Your task to perform on an android device: delete a single message in the gmail app Image 0: 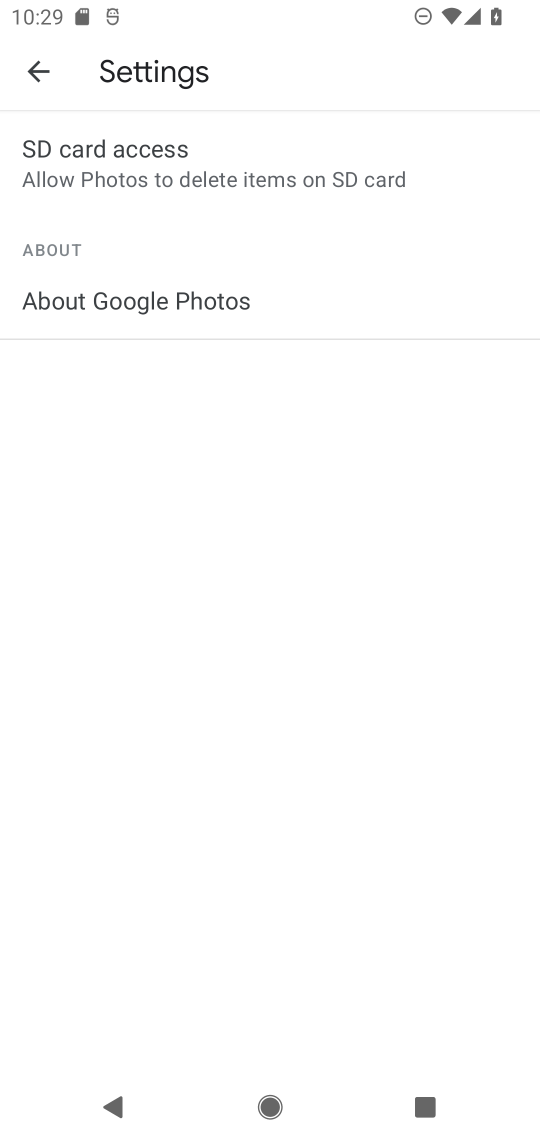
Step 0: press home button
Your task to perform on an android device: delete a single message in the gmail app Image 1: 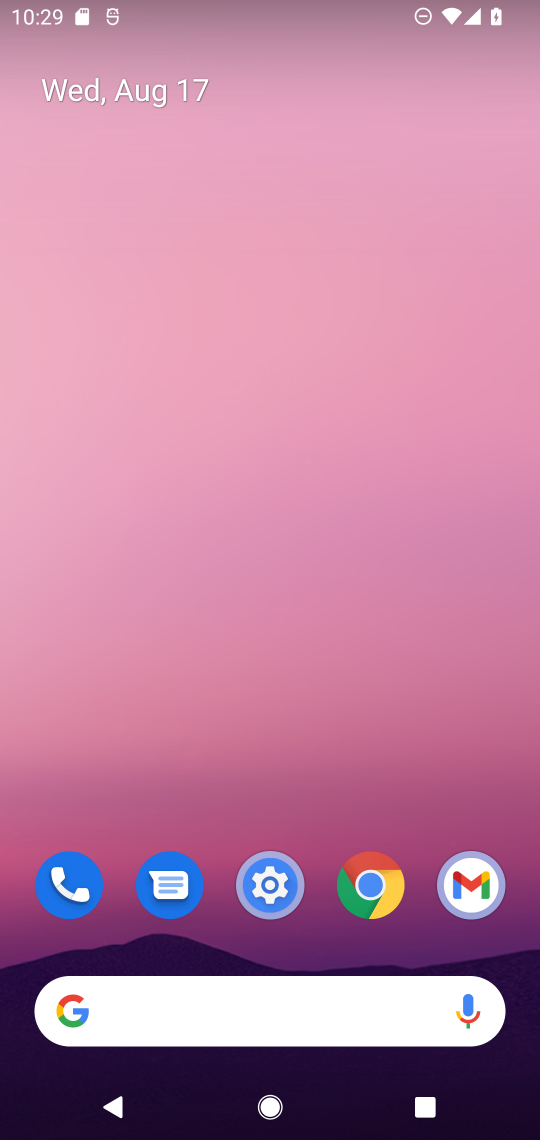
Step 1: click (466, 882)
Your task to perform on an android device: delete a single message in the gmail app Image 2: 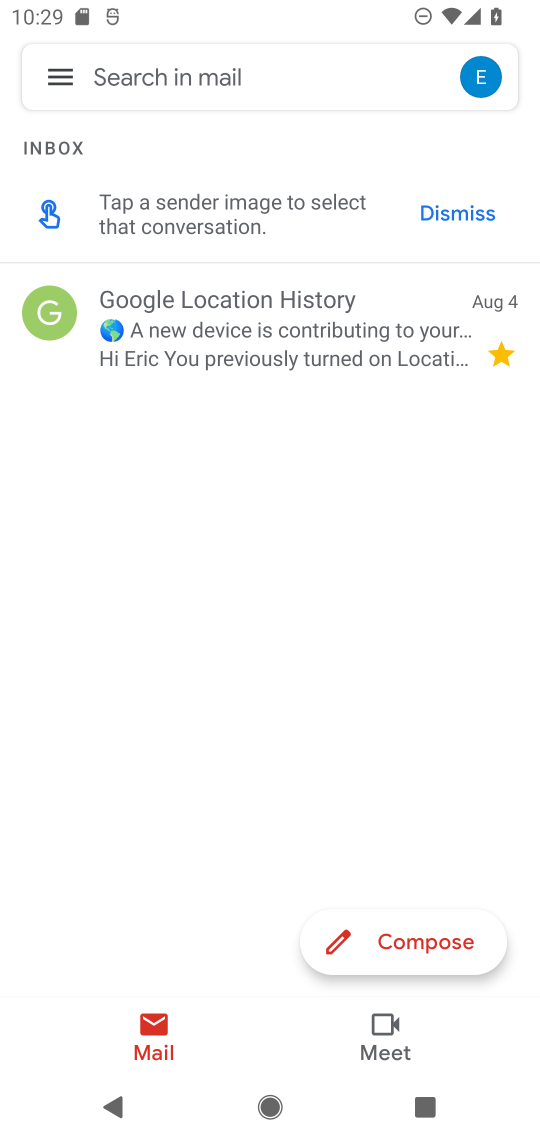
Step 2: click (57, 84)
Your task to perform on an android device: delete a single message in the gmail app Image 3: 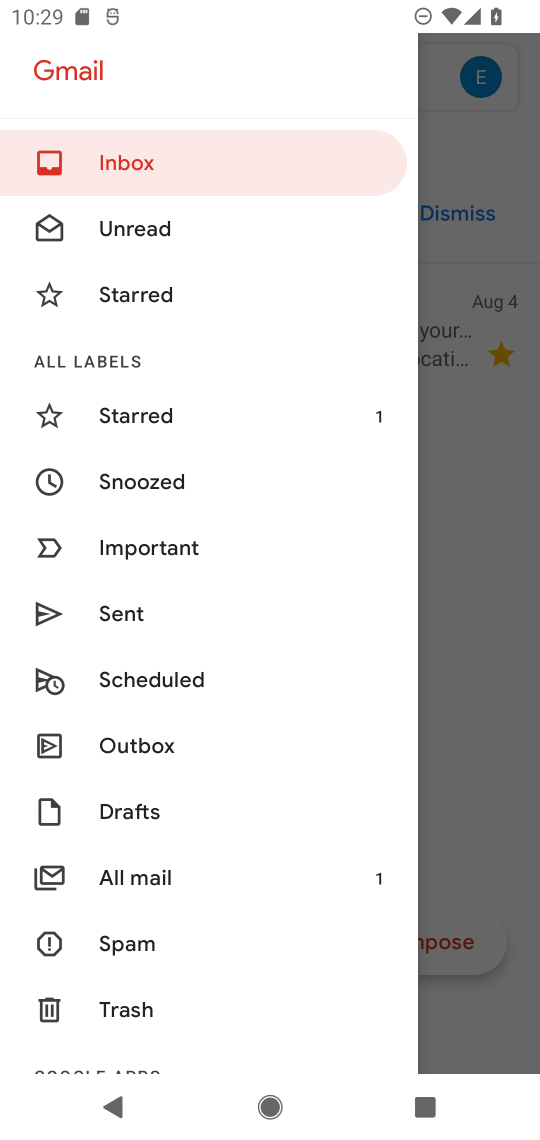
Step 3: click (137, 878)
Your task to perform on an android device: delete a single message in the gmail app Image 4: 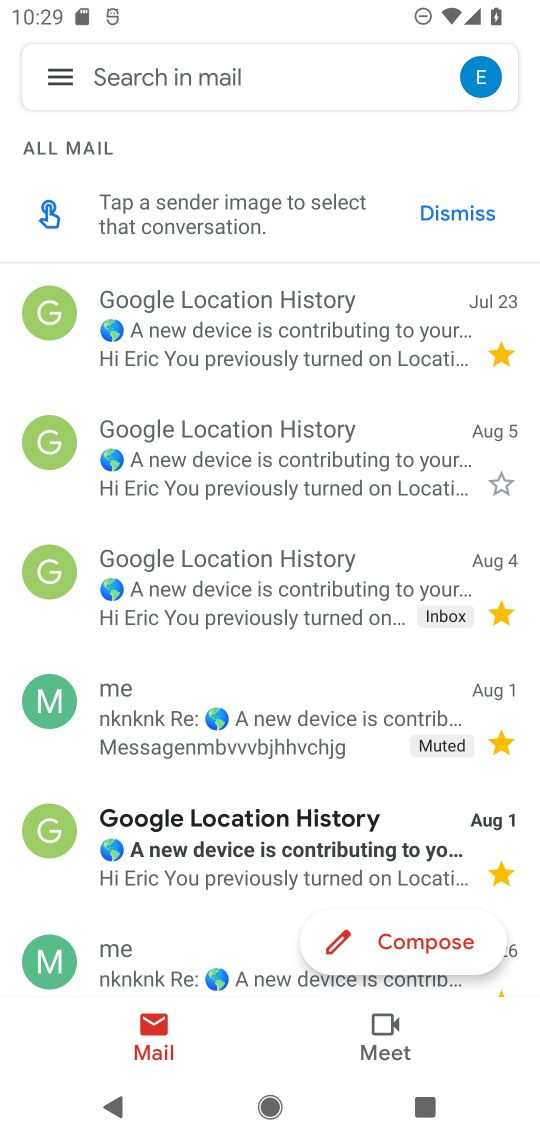
Step 4: click (270, 325)
Your task to perform on an android device: delete a single message in the gmail app Image 5: 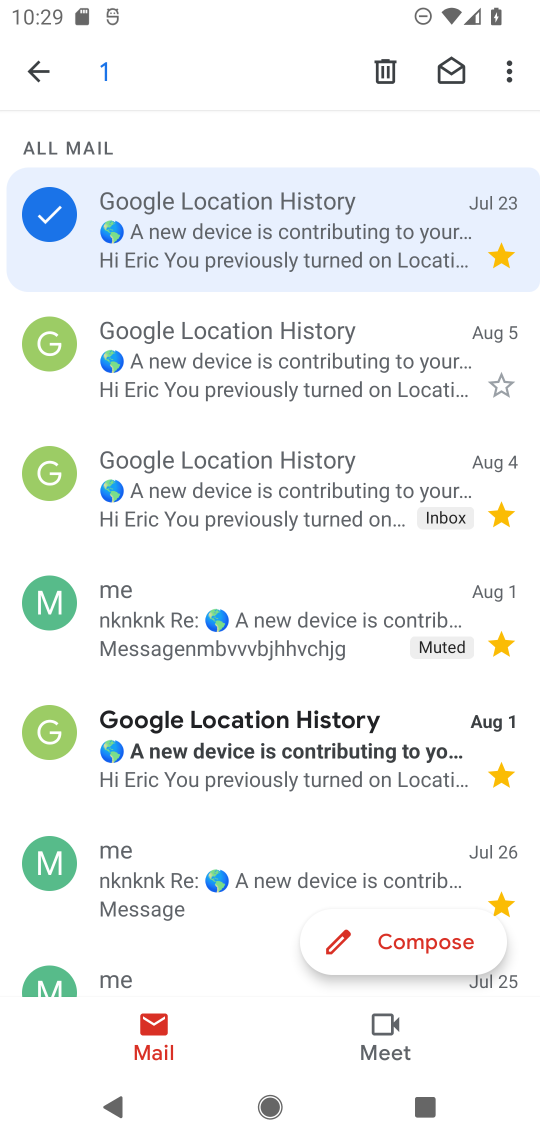
Step 5: click (379, 58)
Your task to perform on an android device: delete a single message in the gmail app Image 6: 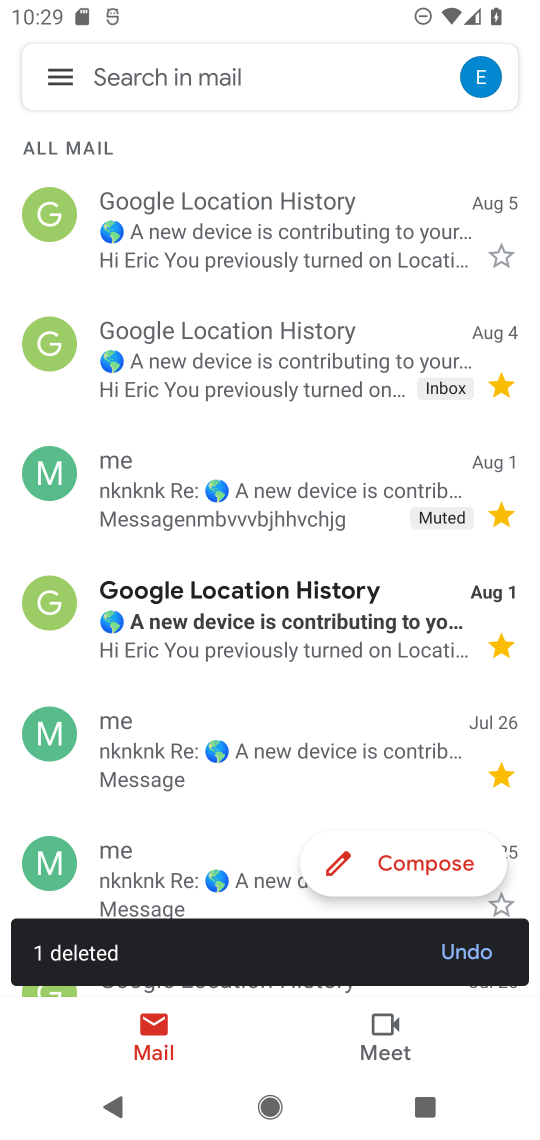
Step 6: task complete